Your task to perform on an android device: find photos in the google photos app Image 0: 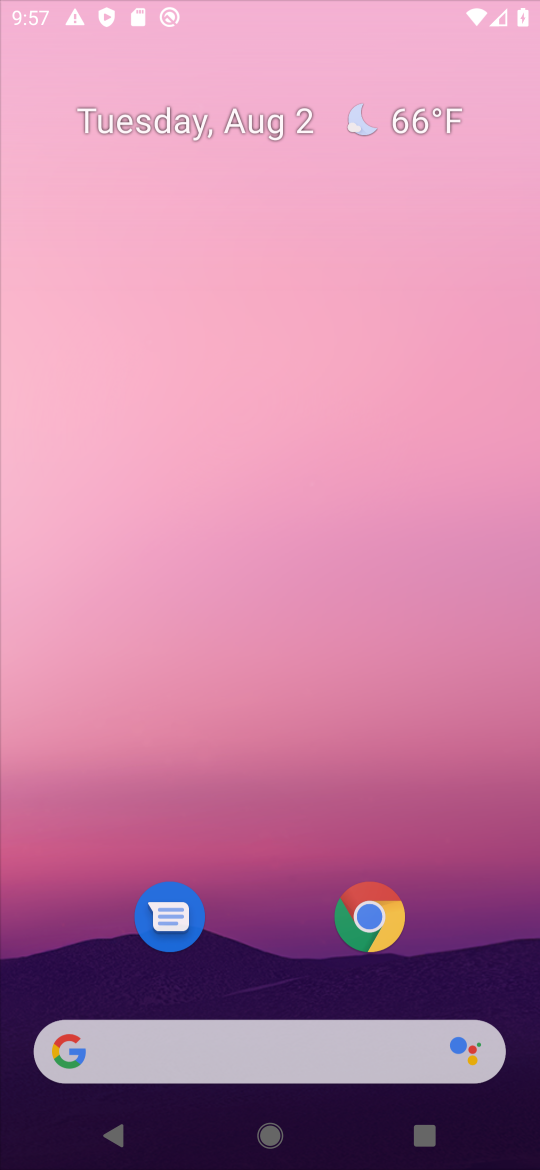
Step 0: press home button
Your task to perform on an android device: find photos in the google photos app Image 1: 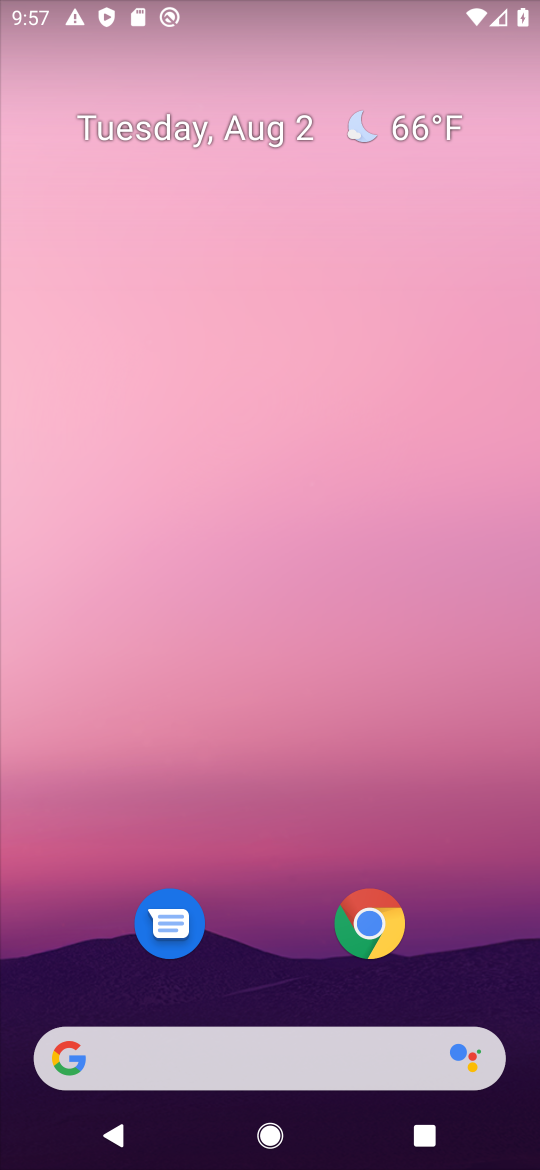
Step 1: drag from (264, 947) to (215, 36)
Your task to perform on an android device: find photos in the google photos app Image 2: 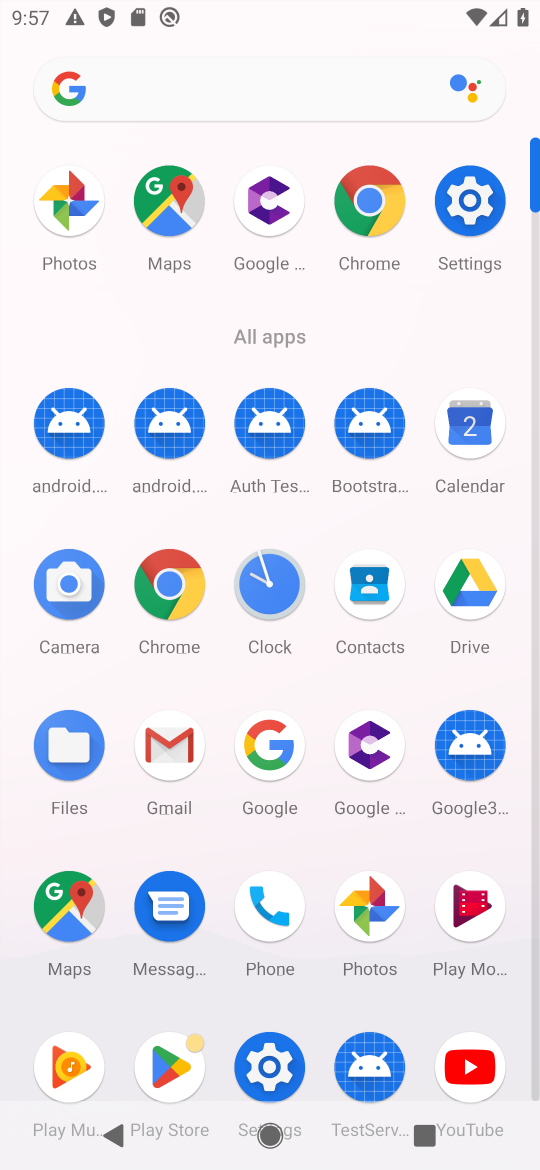
Step 2: click (365, 921)
Your task to perform on an android device: find photos in the google photos app Image 3: 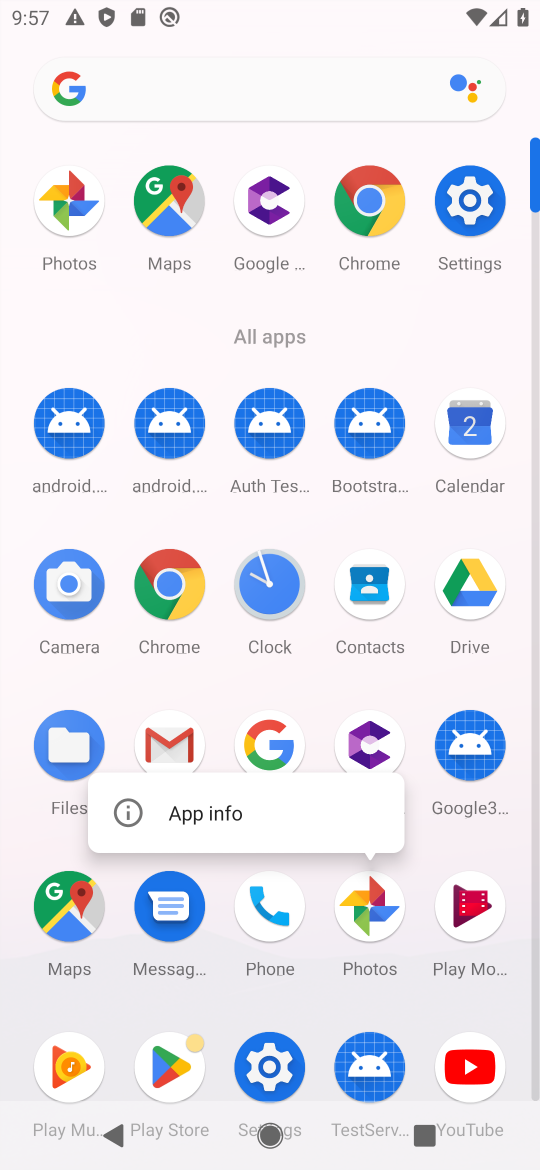
Step 3: click (347, 893)
Your task to perform on an android device: find photos in the google photos app Image 4: 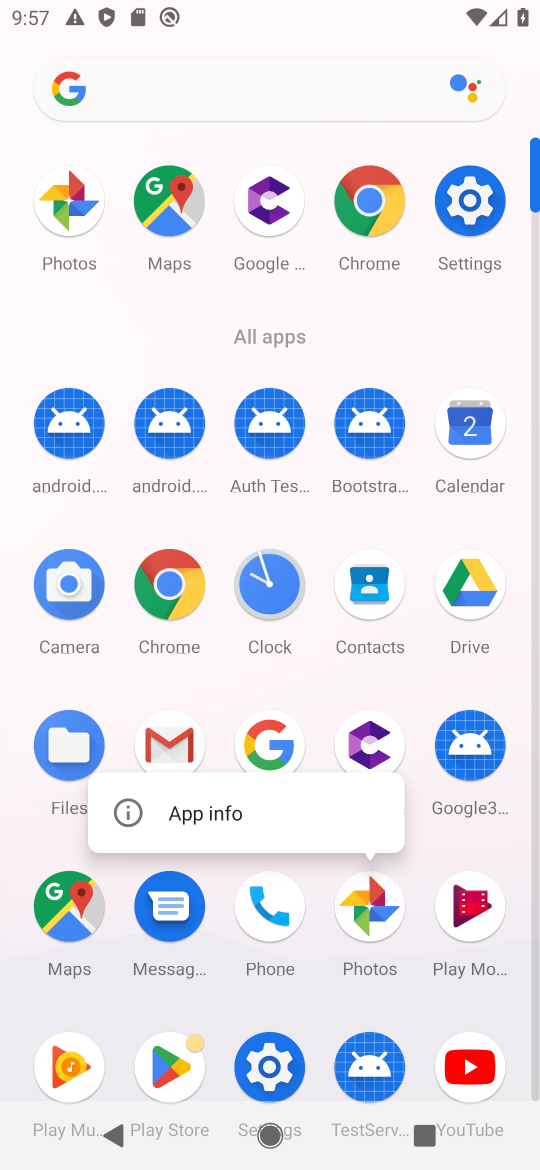
Step 4: click (347, 893)
Your task to perform on an android device: find photos in the google photos app Image 5: 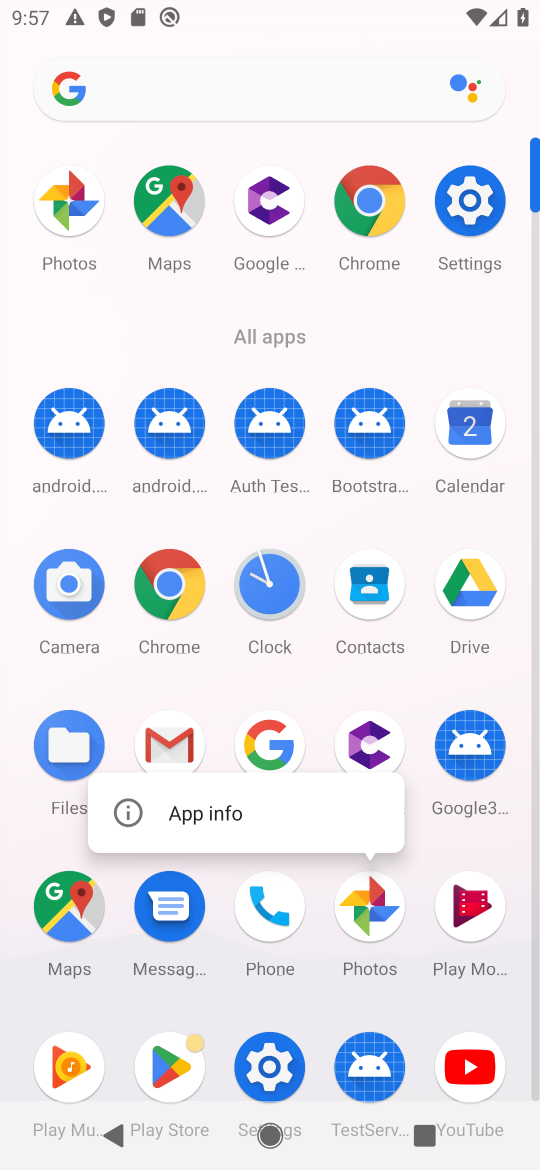
Step 5: click (380, 905)
Your task to perform on an android device: find photos in the google photos app Image 6: 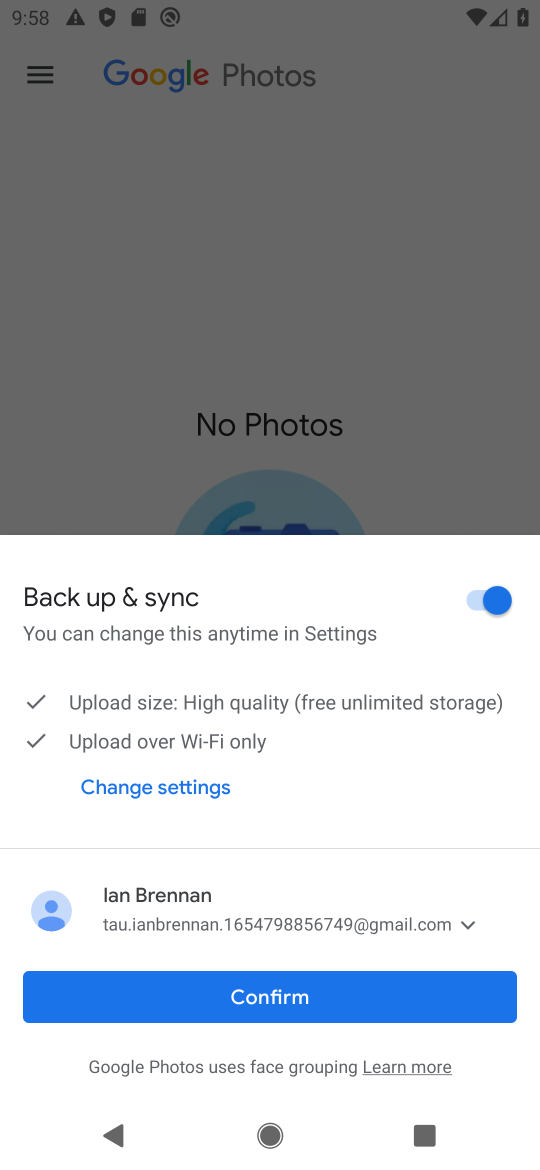
Step 6: click (295, 1006)
Your task to perform on an android device: find photos in the google photos app Image 7: 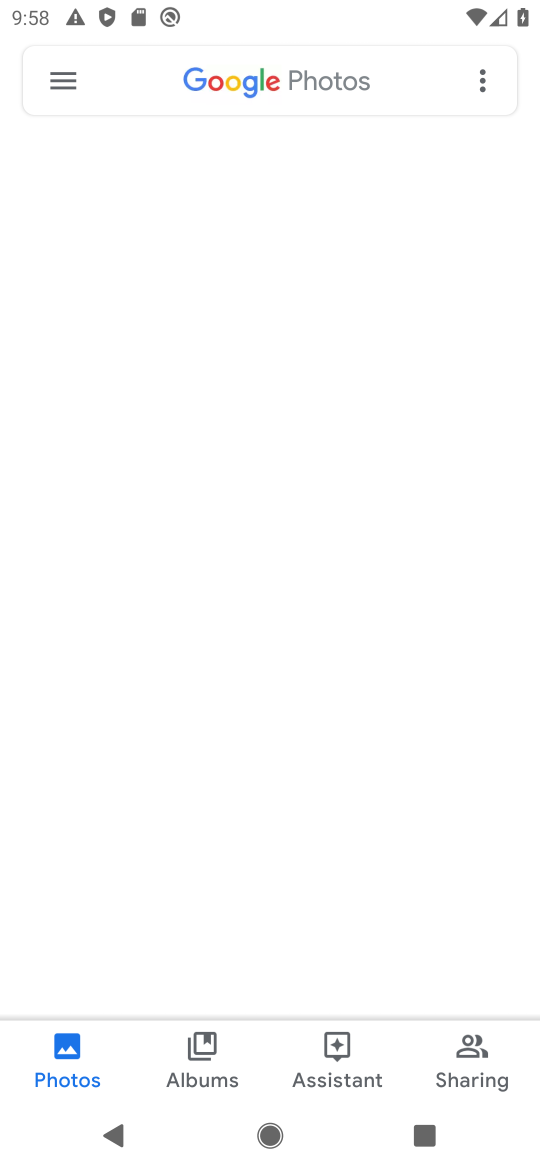
Step 7: task complete